Your task to perform on an android device: Is it going to rain this weekend? Image 0: 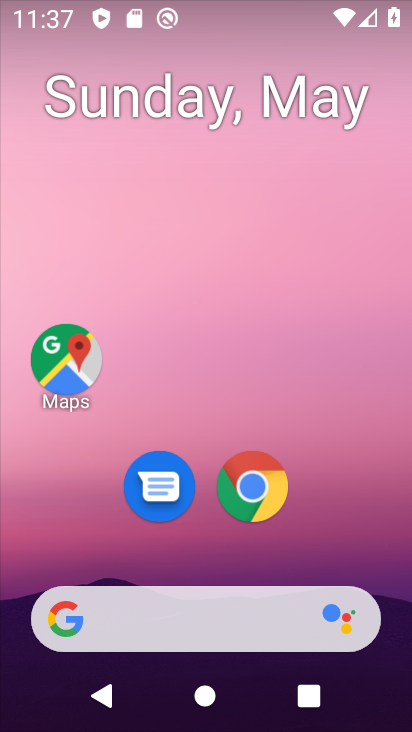
Step 0: press home button
Your task to perform on an android device: Is it going to rain this weekend? Image 1: 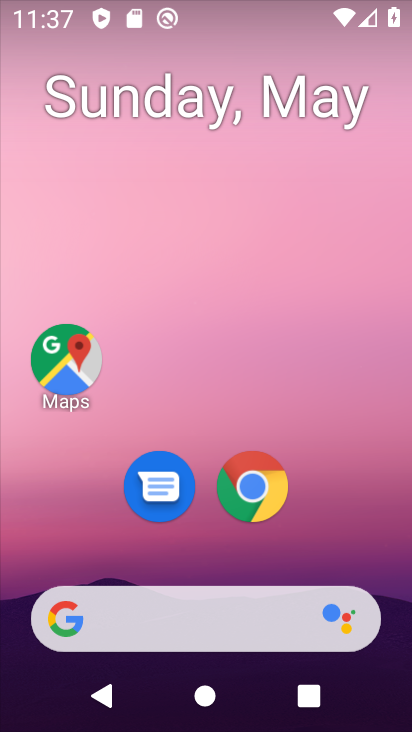
Step 1: click (262, 479)
Your task to perform on an android device: Is it going to rain this weekend? Image 2: 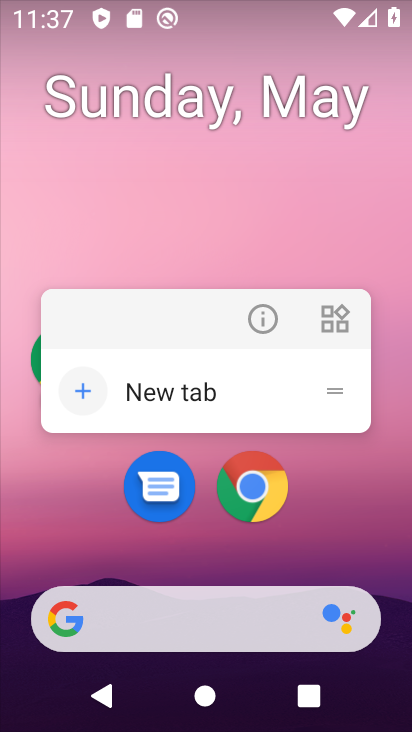
Step 2: click (247, 492)
Your task to perform on an android device: Is it going to rain this weekend? Image 3: 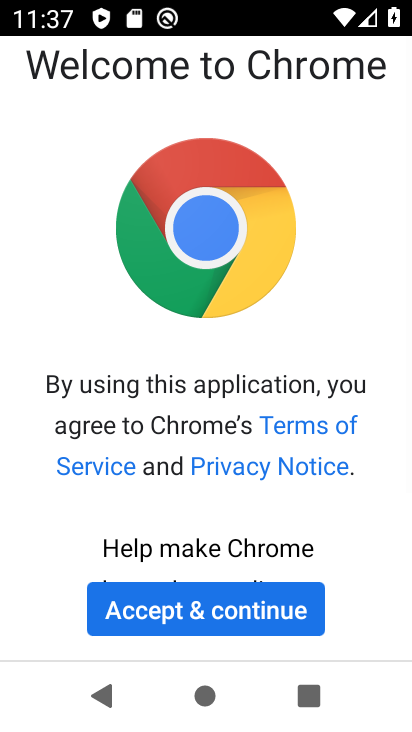
Step 3: click (297, 618)
Your task to perform on an android device: Is it going to rain this weekend? Image 4: 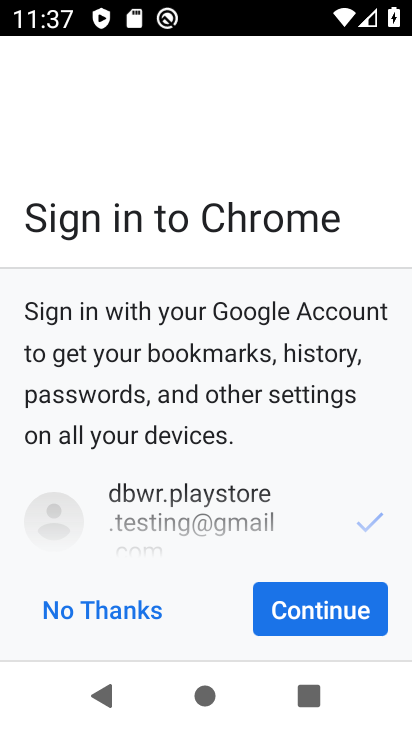
Step 4: click (304, 615)
Your task to perform on an android device: Is it going to rain this weekend? Image 5: 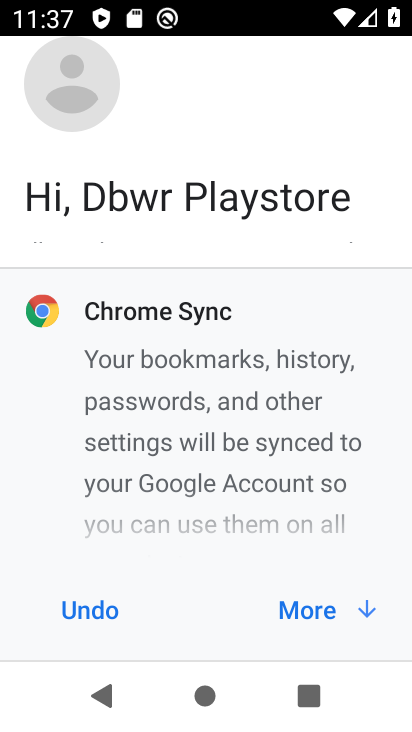
Step 5: click (305, 616)
Your task to perform on an android device: Is it going to rain this weekend? Image 6: 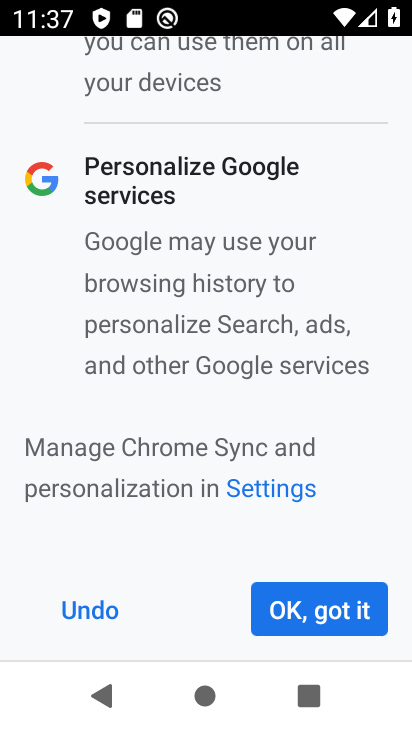
Step 6: click (305, 616)
Your task to perform on an android device: Is it going to rain this weekend? Image 7: 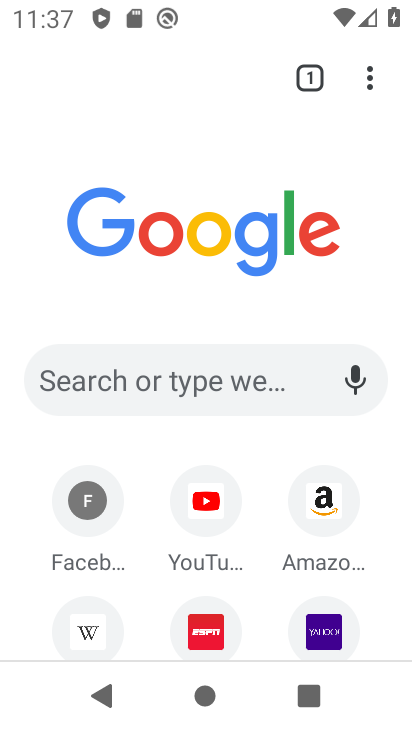
Step 7: click (271, 375)
Your task to perform on an android device: Is it going to rain this weekend? Image 8: 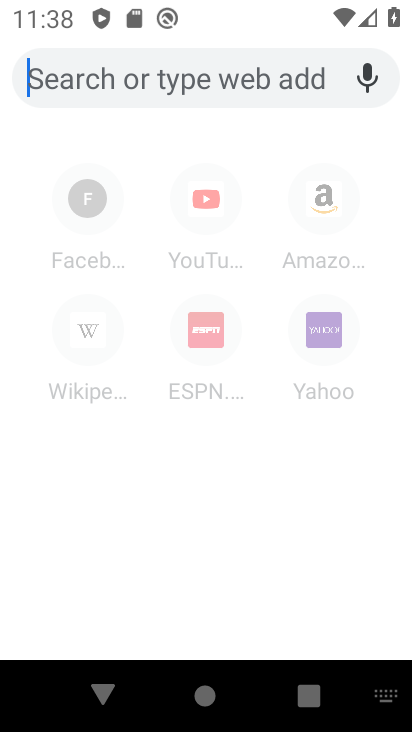
Step 8: type "weather"
Your task to perform on an android device: Is it going to rain this weekend? Image 9: 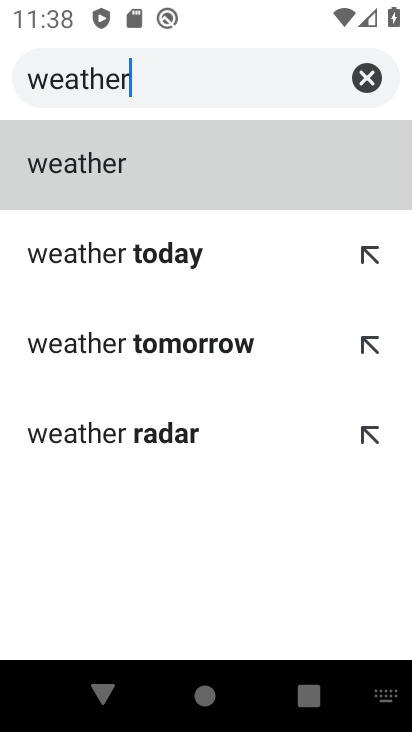
Step 9: click (91, 159)
Your task to perform on an android device: Is it going to rain this weekend? Image 10: 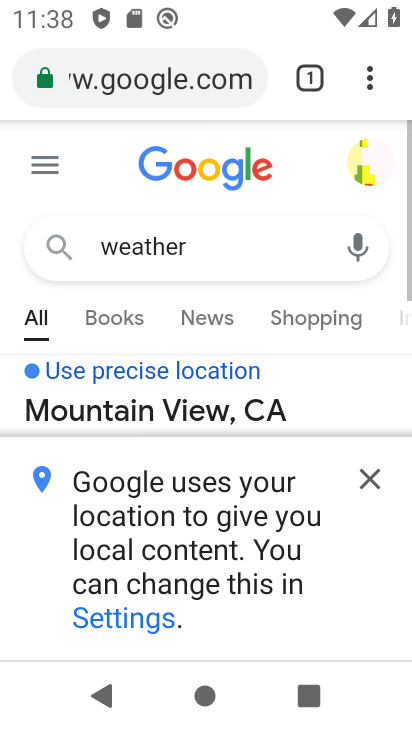
Step 10: click (378, 482)
Your task to perform on an android device: Is it going to rain this weekend? Image 11: 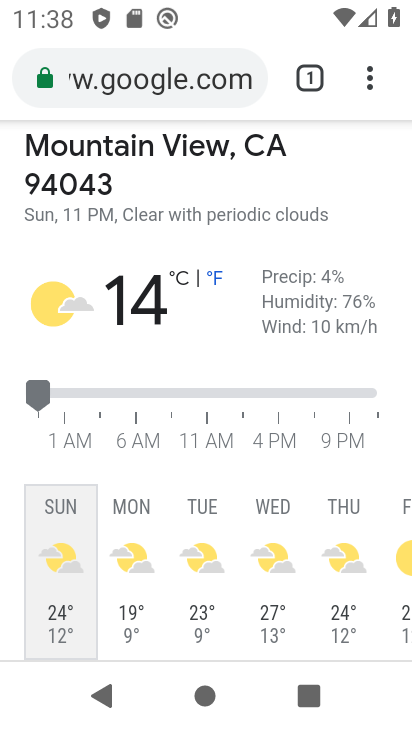
Step 11: task complete